Your task to perform on an android device: change timer sound Image 0: 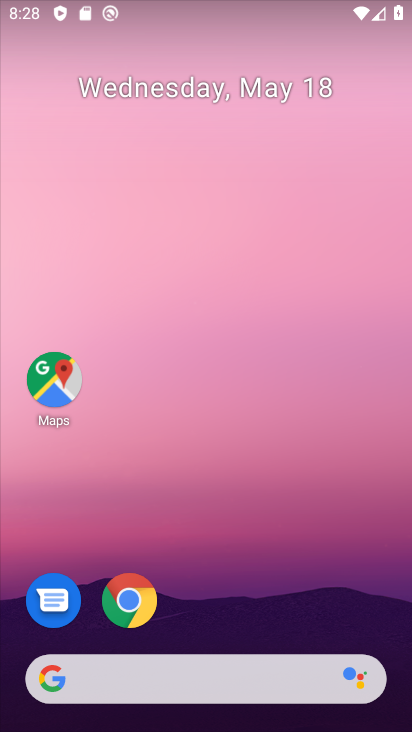
Step 0: drag from (50, 595) to (218, 292)
Your task to perform on an android device: change timer sound Image 1: 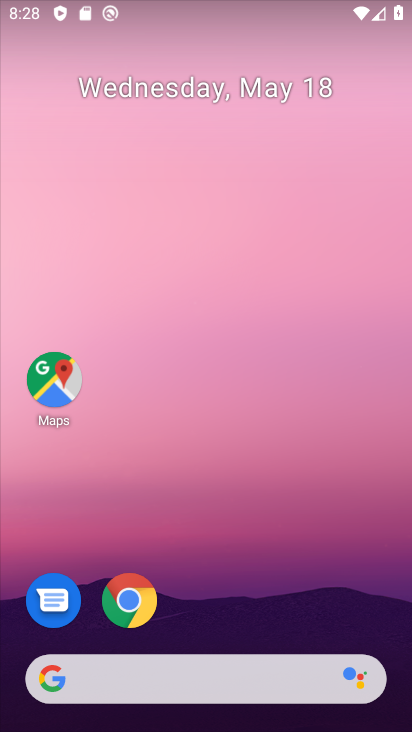
Step 1: drag from (10, 653) to (249, 125)
Your task to perform on an android device: change timer sound Image 2: 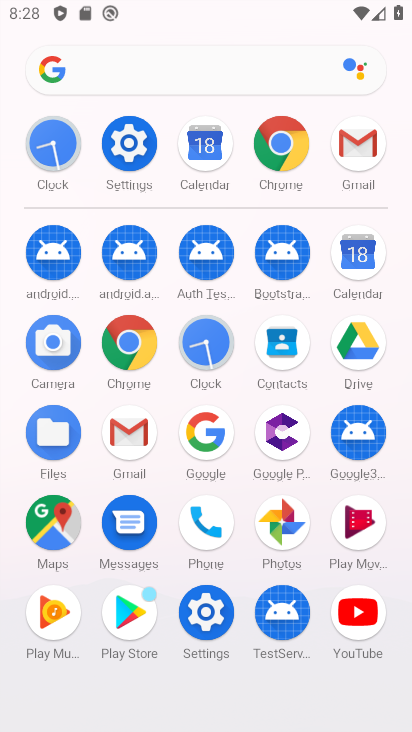
Step 2: click (120, 136)
Your task to perform on an android device: change timer sound Image 3: 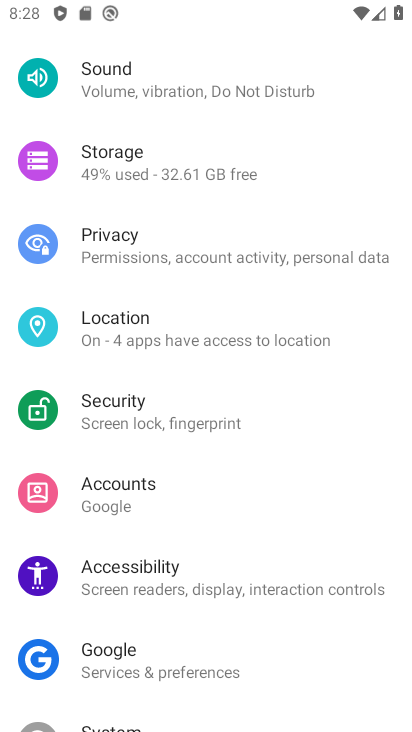
Step 3: press home button
Your task to perform on an android device: change timer sound Image 4: 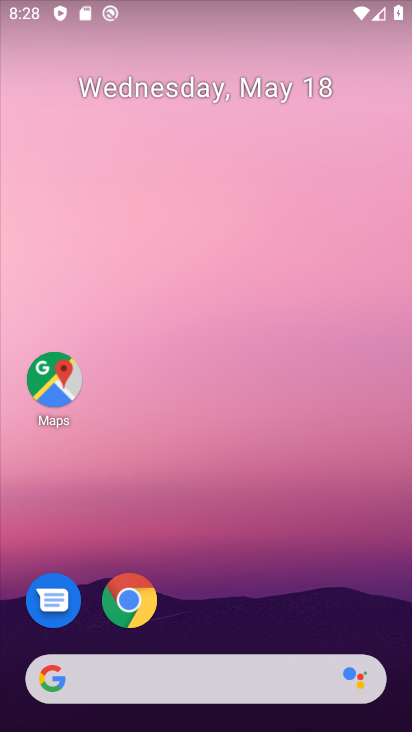
Step 4: drag from (32, 566) to (276, 181)
Your task to perform on an android device: change timer sound Image 5: 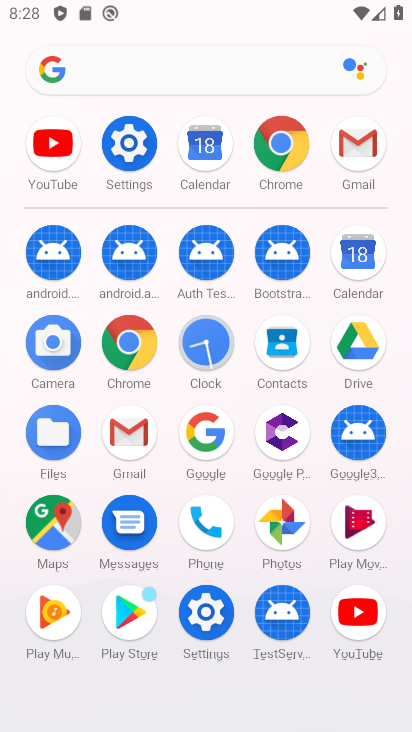
Step 5: click (202, 345)
Your task to perform on an android device: change timer sound Image 6: 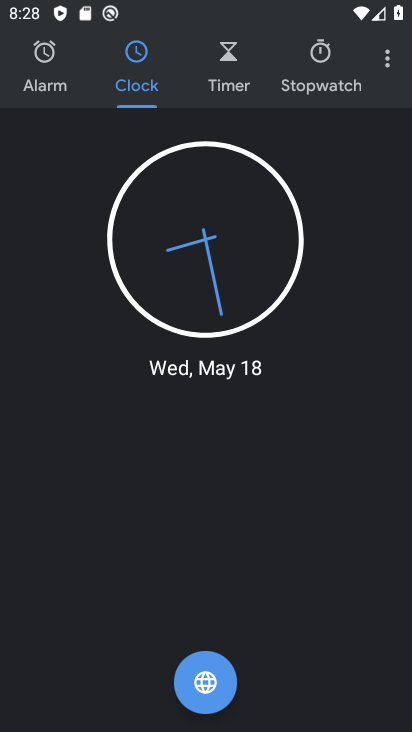
Step 6: click (393, 57)
Your task to perform on an android device: change timer sound Image 7: 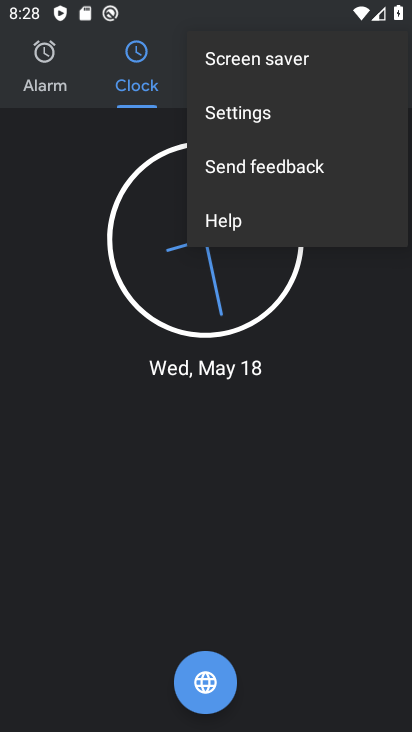
Step 7: click (275, 116)
Your task to perform on an android device: change timer sound Image 8: 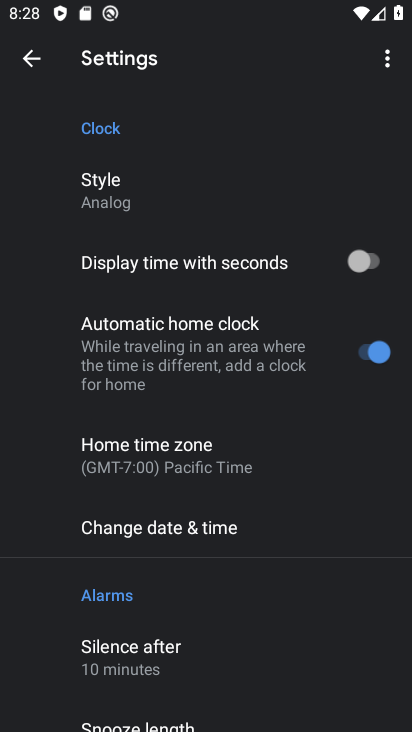
Step 8: drag from (32, 680) to (289, 110)
Your task to perform on an android device: change timer sound Image 9: 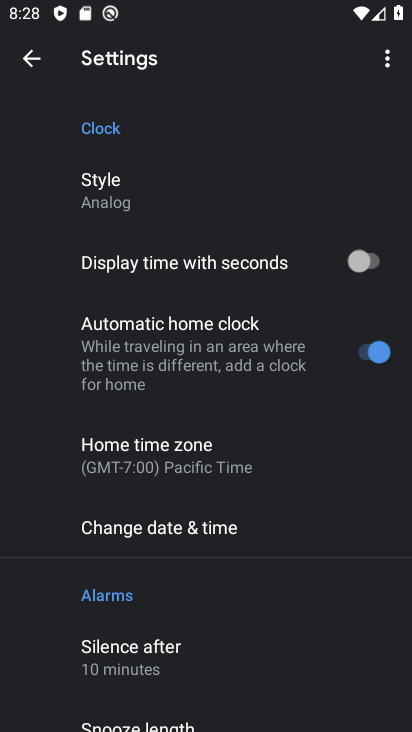
Step 9: drag from (36, 510) to (253, 161)
Your task to perform on an android device: change timer sound Image 10: 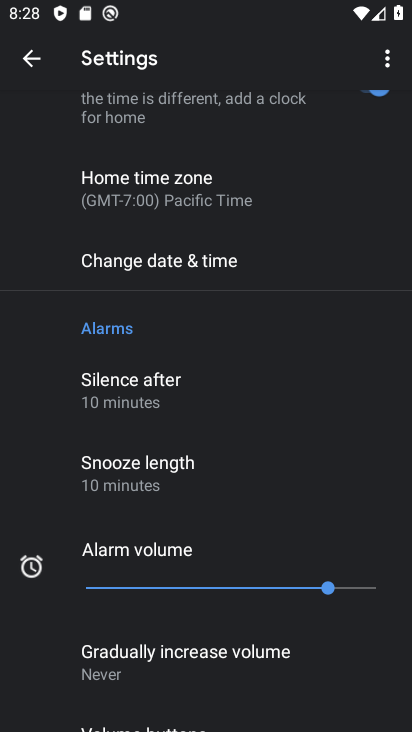
Step 10: drag from (20, 551) to (262, 140)
Your task to perform on an android device: change timer sound Image 11: 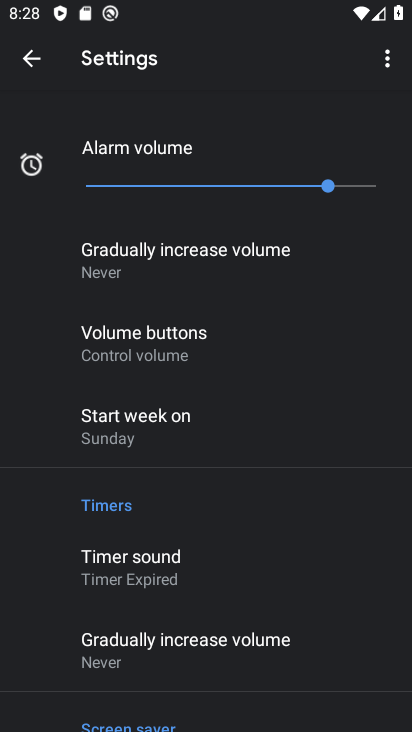
Step 11: click (137, 576)
Your task to perform on an android device: change timer sound Image 12: 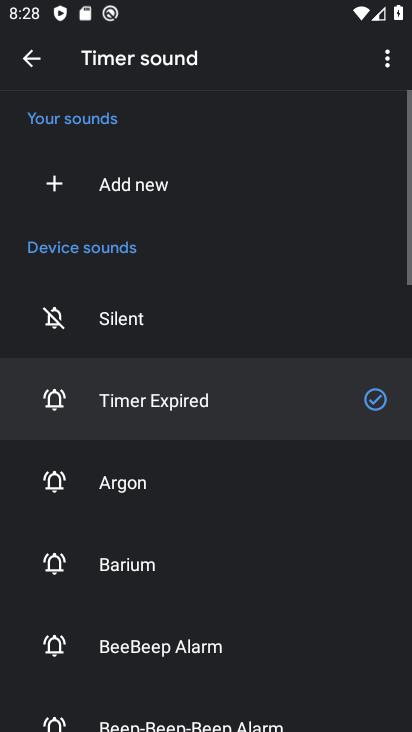
Step 12: click (119, 497)
Your task to perform on an android device: change timer sound Image 13: 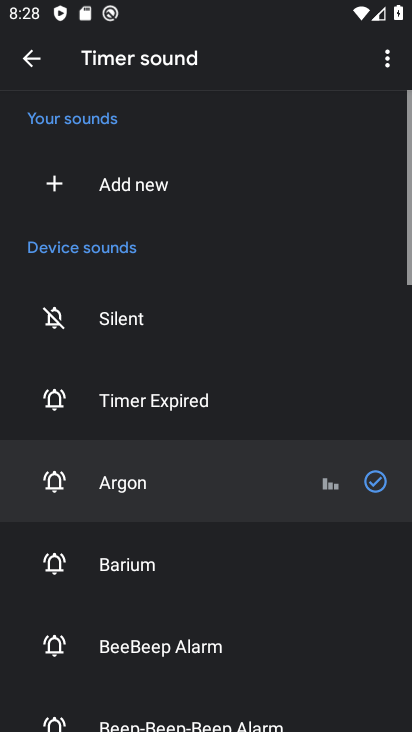
Step 13: task complete